Your task to perform on an android device: empty trash in google photos Image 0: 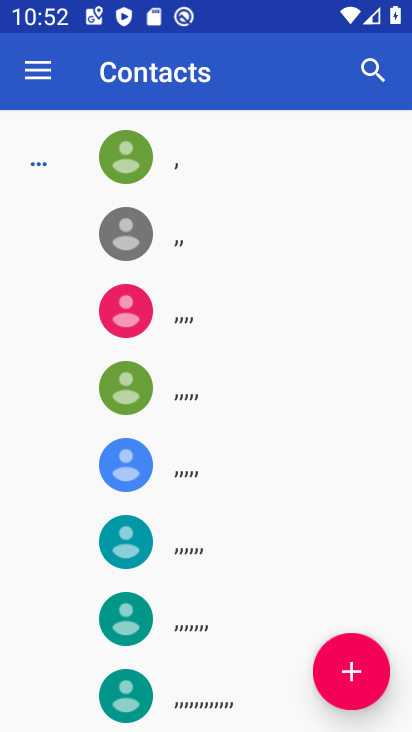
Step 0: press home button
Your task to perform on an android device: empty trash in google photos Image 1: 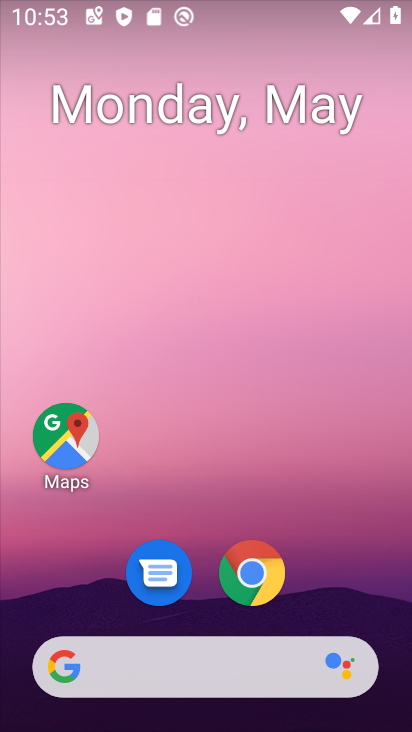
Step 1: drag from (333, 538) to (249, 58)
Your task to perform on an android device: empty trash in google photos Image 2: 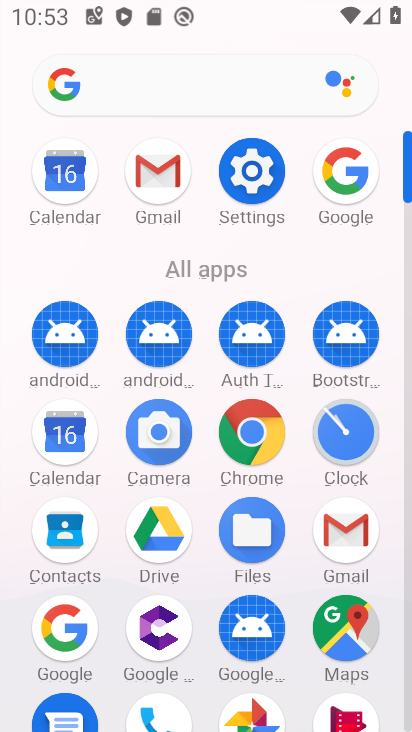
Step 2: click (263, 715)
Your task to perform on an android device: empty trash in google photos Image 3: 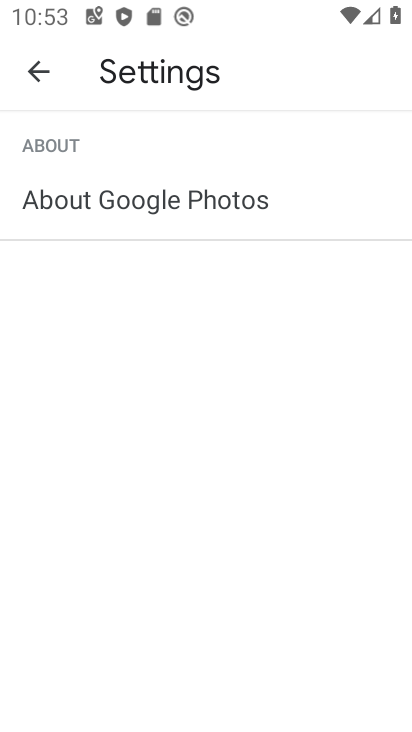
Step 3: press home button
Your task to perform on an android device: empty trash in google photos Image 4: 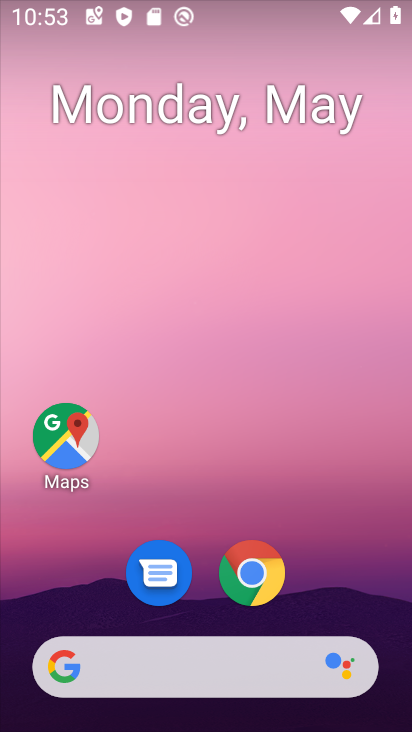
Step 4: drag from (326, 576) to (227, 5)
Your task to perform on an android device: empty trash in google photos Image 5: 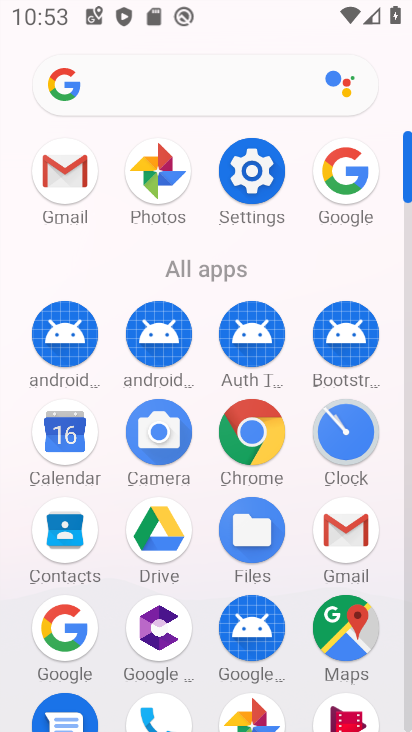
Step 5: click (259, 692)
Your task to perform on an android device: empty trash in google photos Image 6: 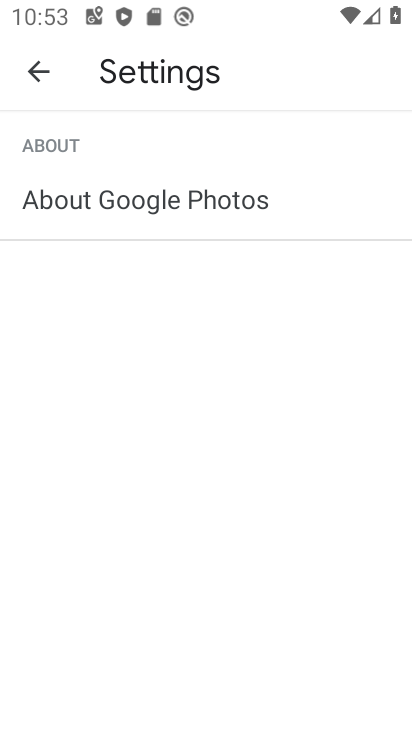
Step 6: click (50, 70)
Your task to perform on an android device: empty trash in google photos Image 7: 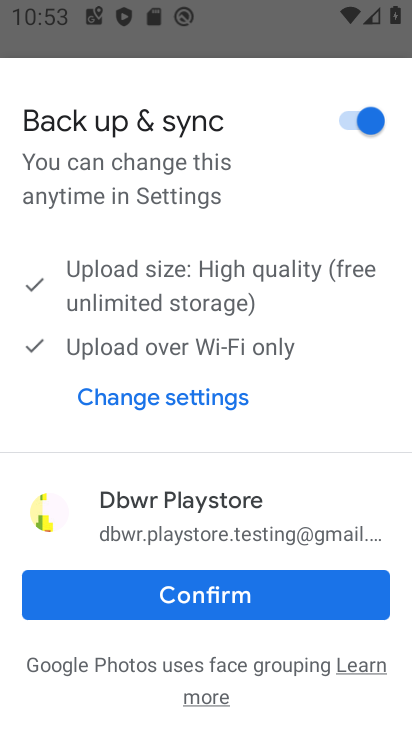
Step 7: click (280, 29)
Your task to perform on an android device: empty trash in google photos Image 8: 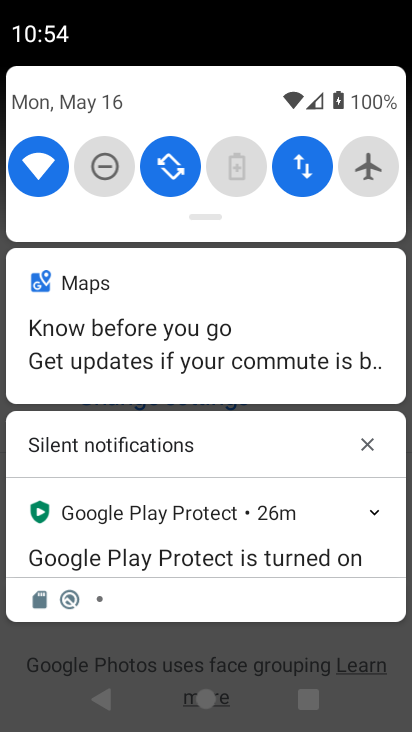
Step 8: click (255, 593)
Your task to perform on an android device: empty trash in google photos Image 9: 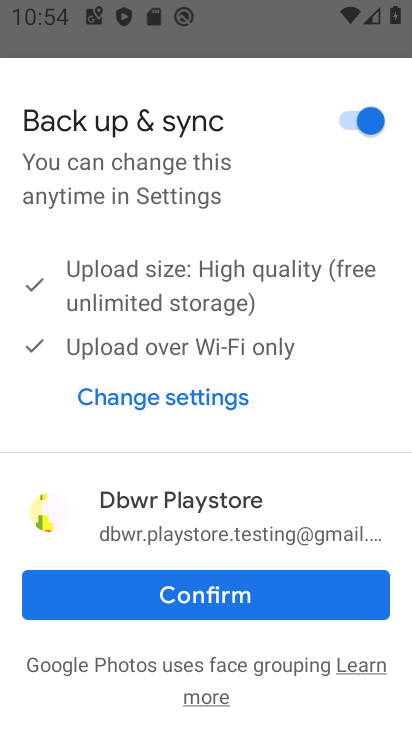
Step 9: click (247, 585)
Your task to perform on an android device: empty trash in google photos Image 10: 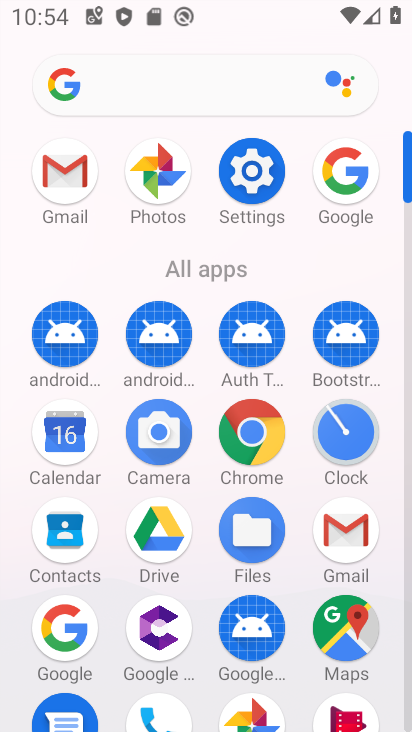
Step 10: click (148, 158)
Your task to perform on an android device: empty trash in google photos Image 11: 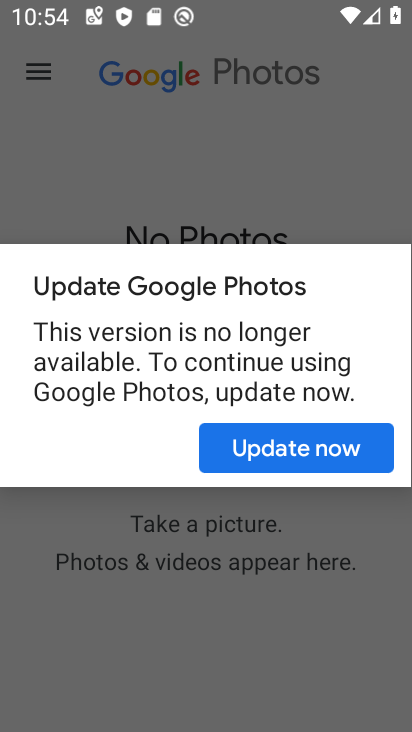
Step 11: click (270, 434)
Your task to perform on an android device: empty trash in google photos Image 12: 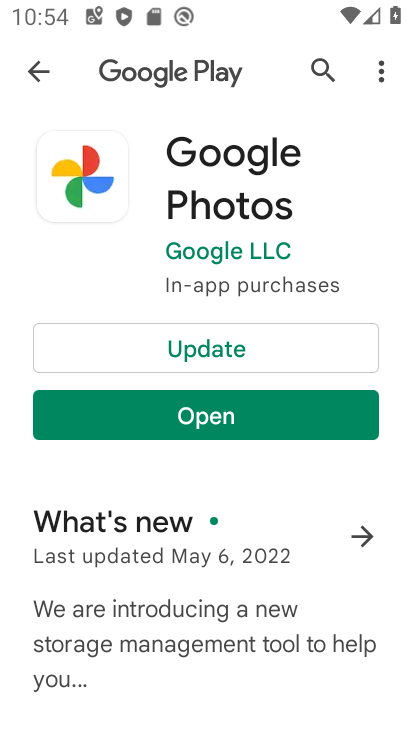
Step 12: click (215, 346)
Your task to perform on an android device: empty trash in google photos Image 13: 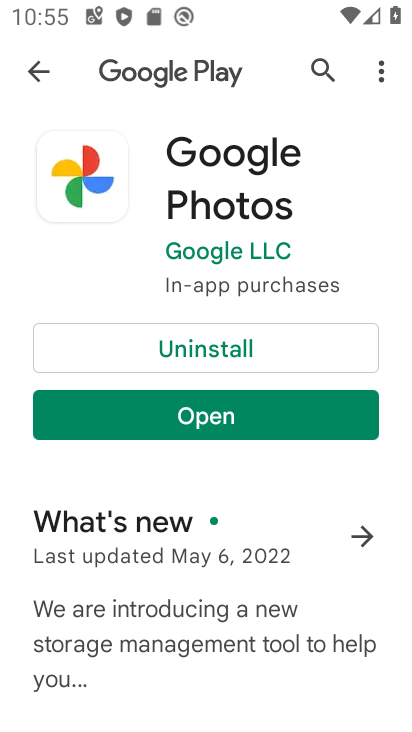
Step 13: click (327, 411)
Your task to perform on an android device: empty trash in google photos Image 14: 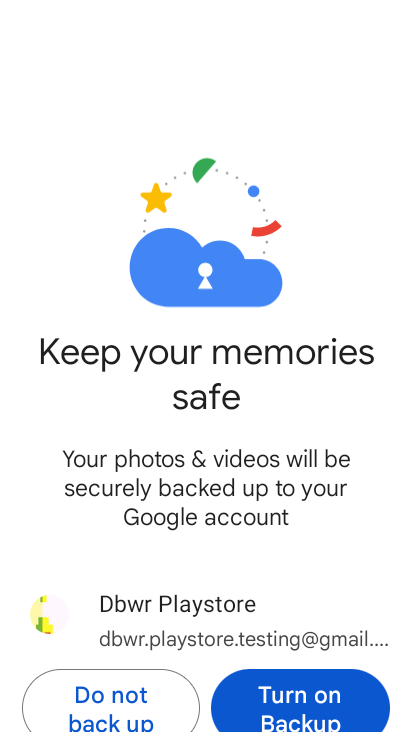
Step 14: click (149, 699)
Your task to perform on an android device: empty trash in google photos Image 15: 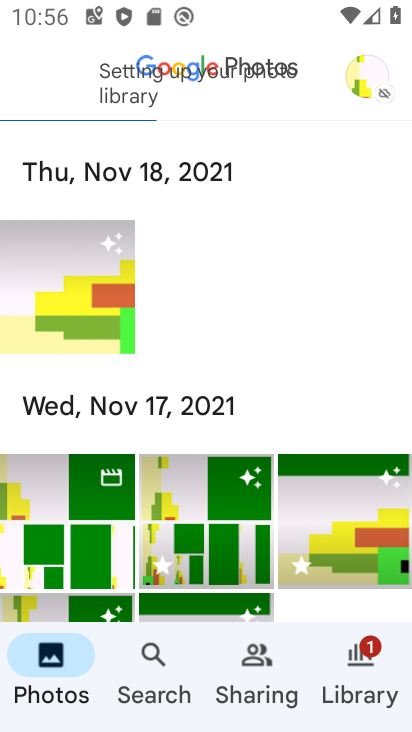
Step 15: click (358, 669)
Your task to perform on an android device: empty trash in google photos Image 16: 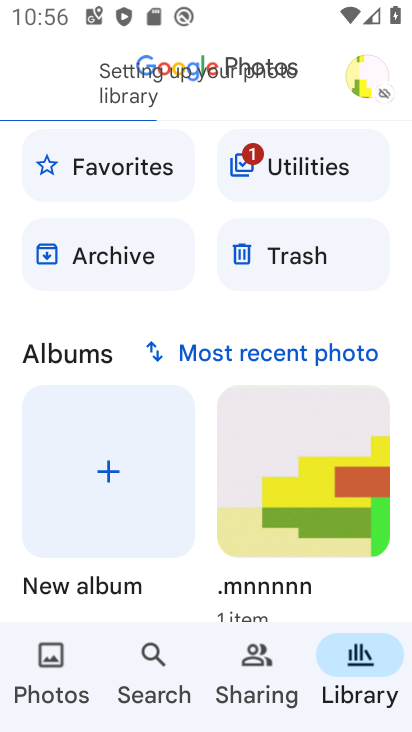
Step 16: click (313, 260)
Your task to perform on an android device: empty trash in google photos Image 17: 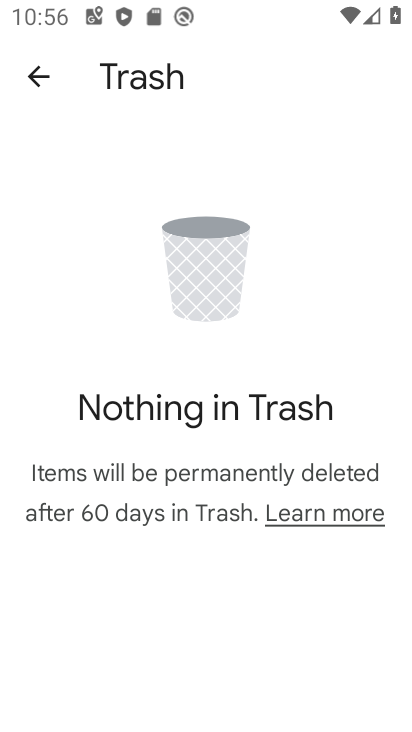
Step 17: task complete